Your task to perform on an android device: Open settings Image 0: 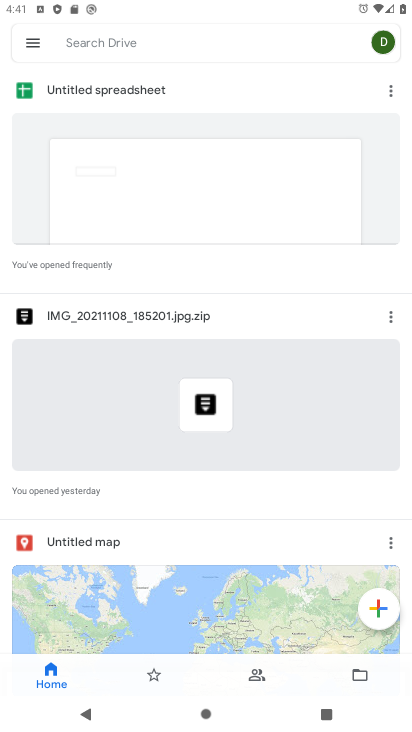
Step 0: press home button
Your task to perform on an android device: Open settings Image 1: 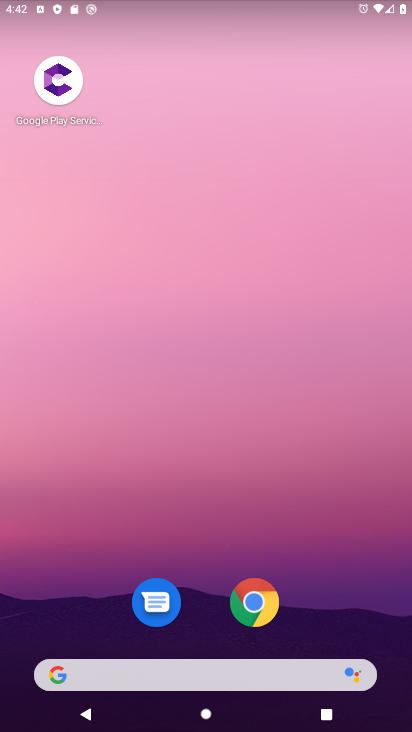
Step 1: drag from (187, 649) to (178, 37)
Your task to perform on an android device: Open settings Image 2: 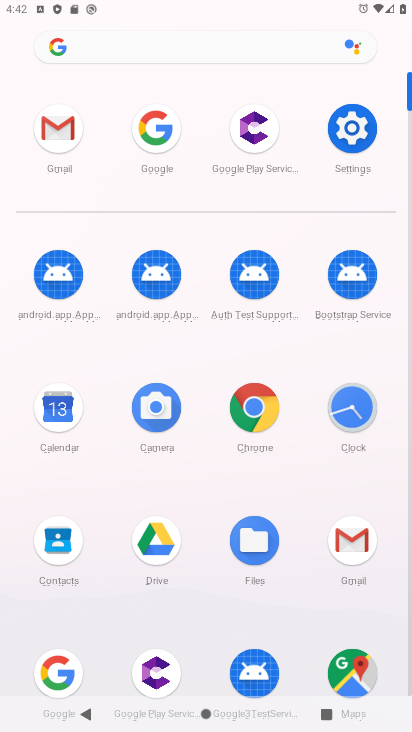
Step 2: click (363, 135)
Your task to perform on an android device: Open settings Image 3: 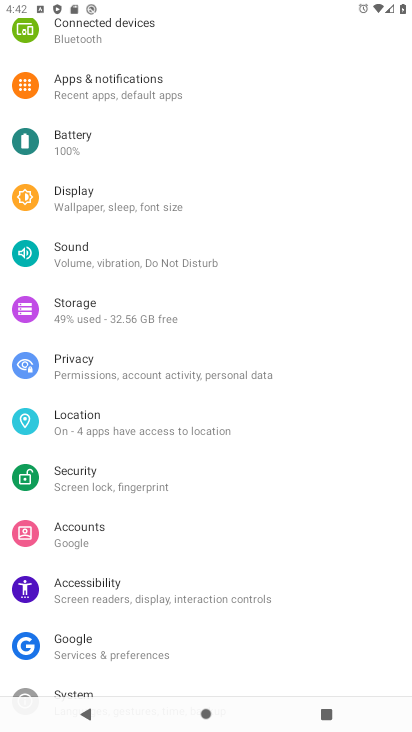
Step 3: task complete